Your task to perform on an android device: change text size in settings app Image 0: 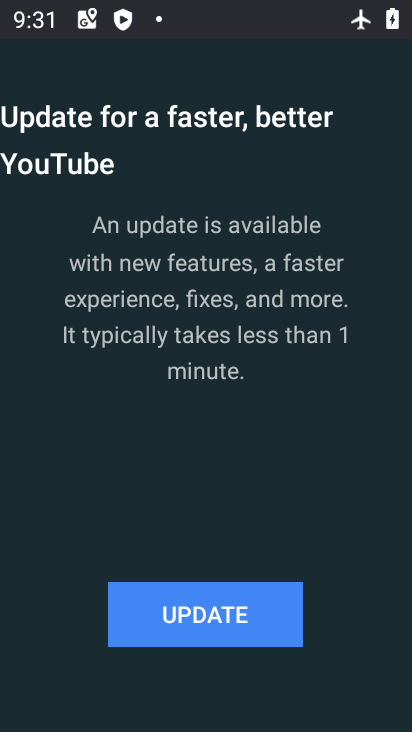
Step 0: press home button
Your task to perform on an android device: change text size in settings app Image 1: 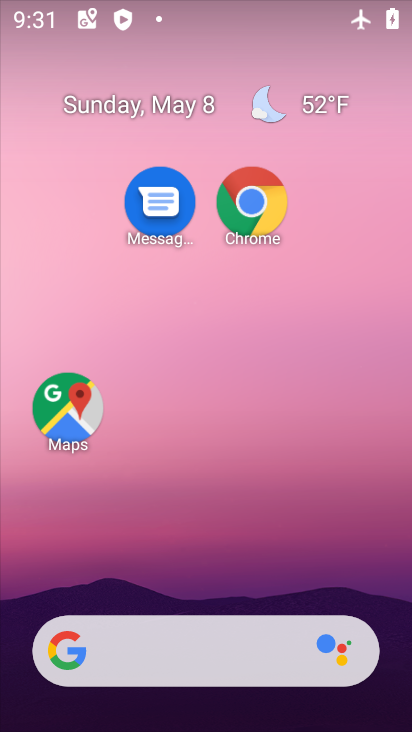
Step 1: drag from (199, 605) to (365, 24)
Your task to perform on an android device: change text size in settings app Image 2: 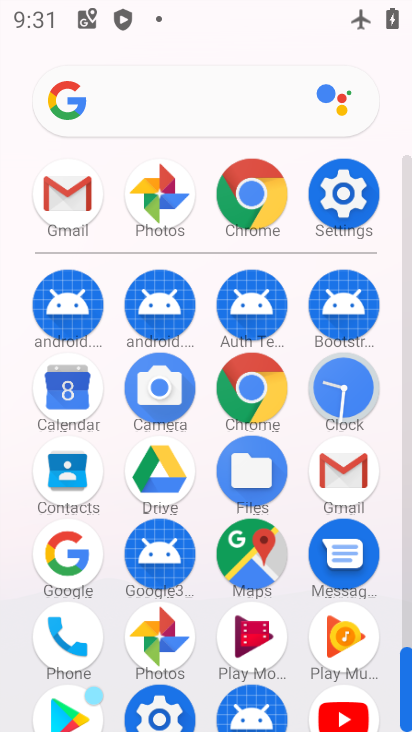
Step 2: click (323, 201)
Your task to perform on an android device: change text size in settings app Image 3: 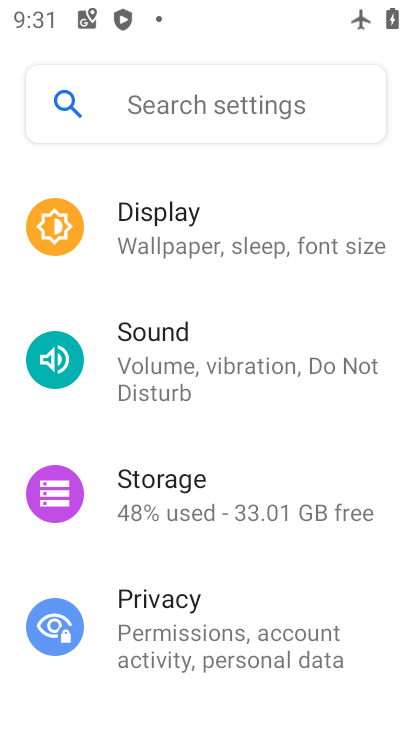
Step 3: drag from (241, 544) to (192, 76)
Your task to perform on an android device: change text size in settings app Image 4: 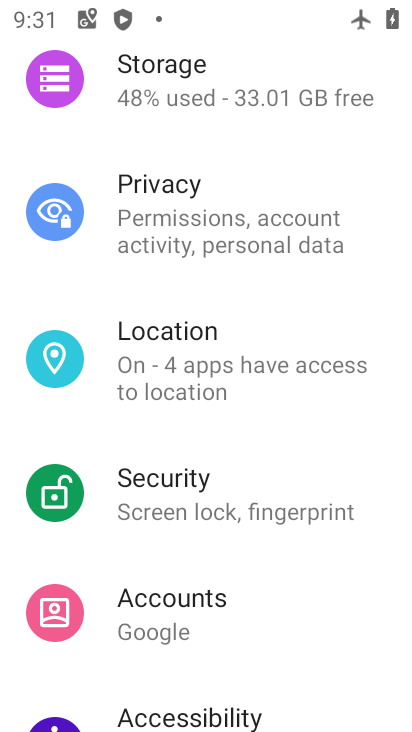
Step 4: drag from (199, 97) to (90, 632)
Your task to perform on an android device: change text size in settings app Image 5: 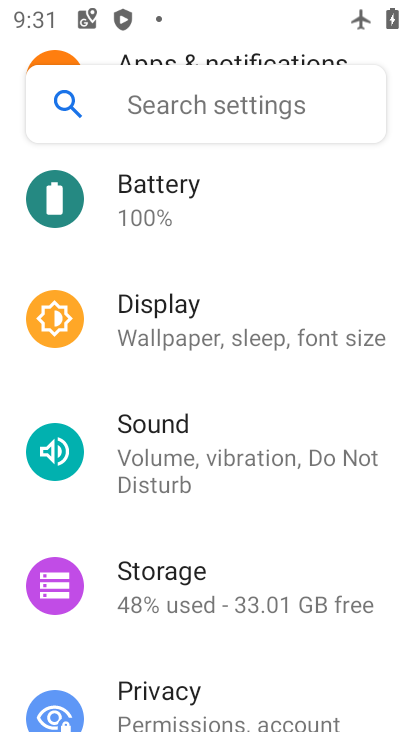
Step 5: click (117, 362)
Your task to perform on an android device: change text size in settings app Image 6: 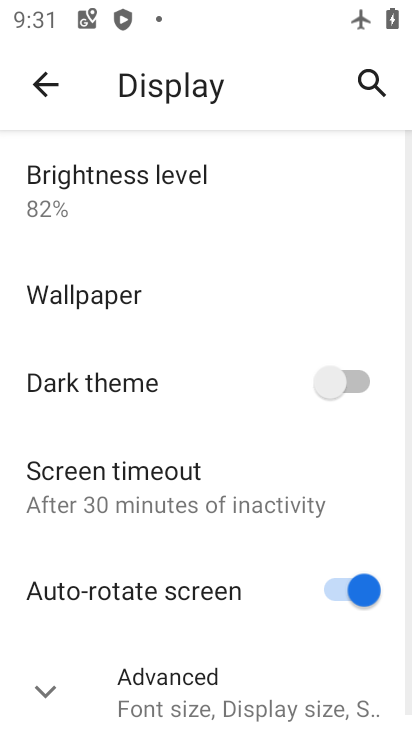
Step 6: click (167, 682)
Your task to perform on an android device: change text size in settings app Image 7: 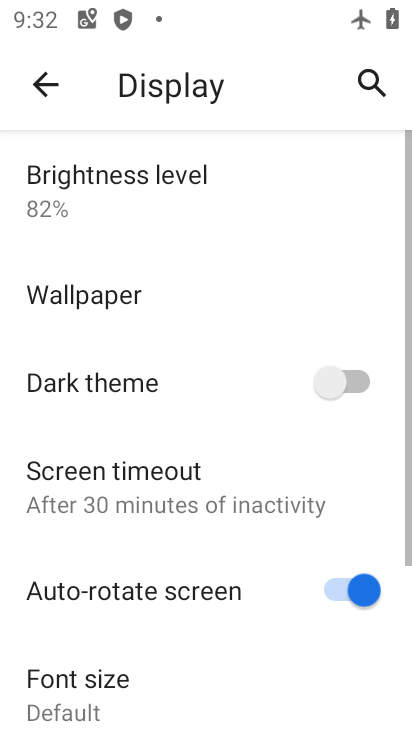
Step 7: drag from (167, 682) to (114, 327)
Your task to perform on an android device: change text size in settings app Image 8: 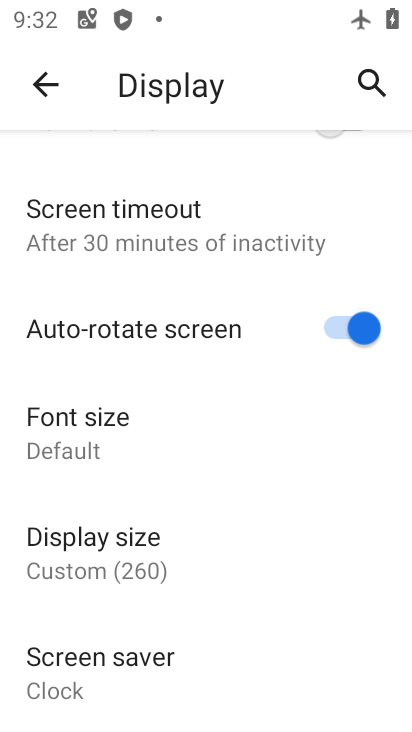
Step 8: click (89, 431)
Your task to perform on an android device: change text size in settings app Image 9: 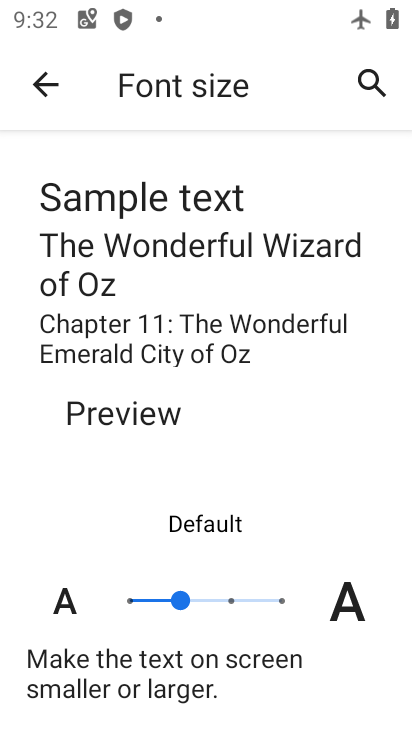
Step 9: click (227, 600)
Your task to perform on an android device: change text size in settings app Image 10: 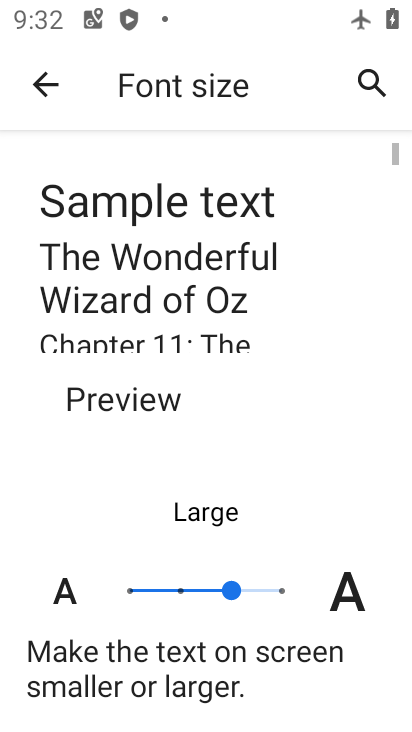
Step 10: task complete